Your task to perform on an android device: Open Youtube and go to the subscriptions tab Image 0: 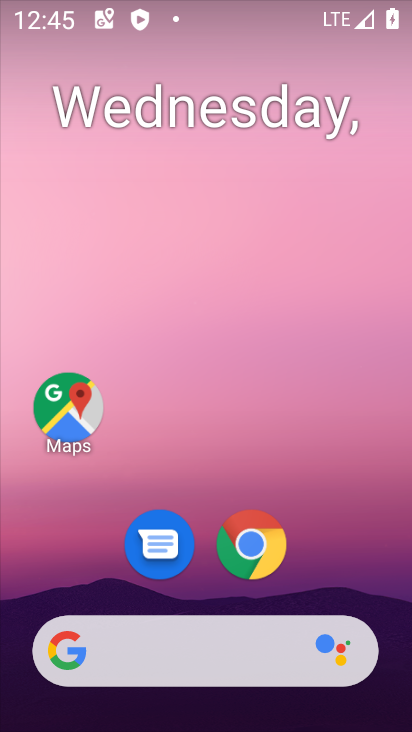
Step 0: drag from (396, 620) to (350, 114)
Your task to perform on an android device: Open Youtube and go to the subscriptions tab Image 1: 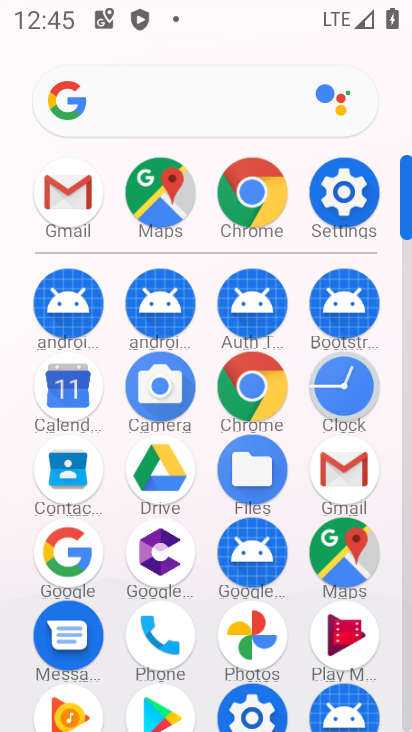
Step 1: drag from (300, 669) to (314, 99)
Your task to perform on an android device: Open Youtube and go to the subscriptions tab Image 2: 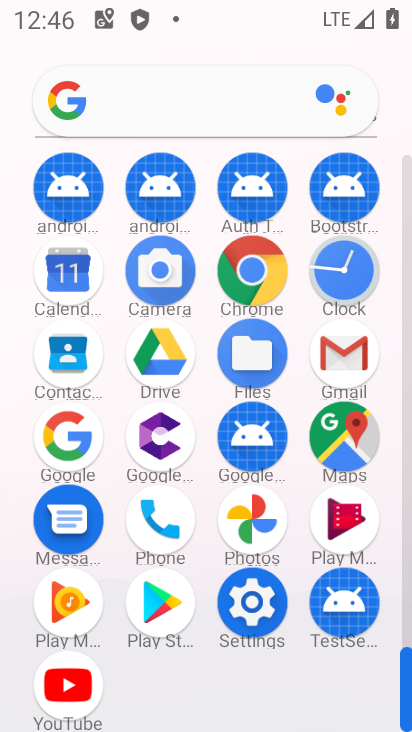
Step 2: click (86, 665)
Your task to perform on an android device: Open Youtube and go to the subscriptions tab Image 3: 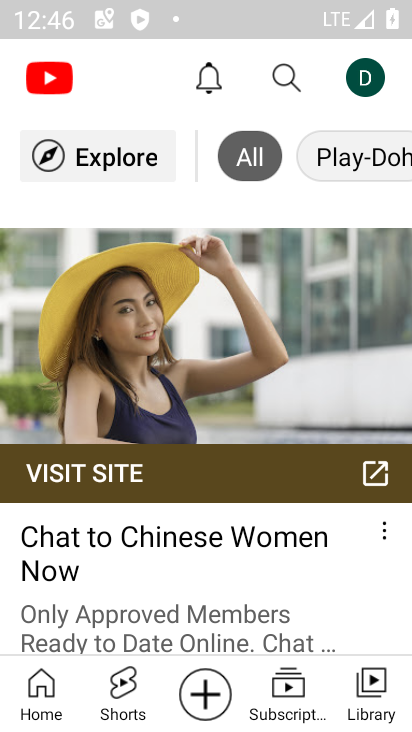
Step 3: click (287, 686)
Your task to perform on an android device: Open Youtube and go to the subscriptions tab Image 4: 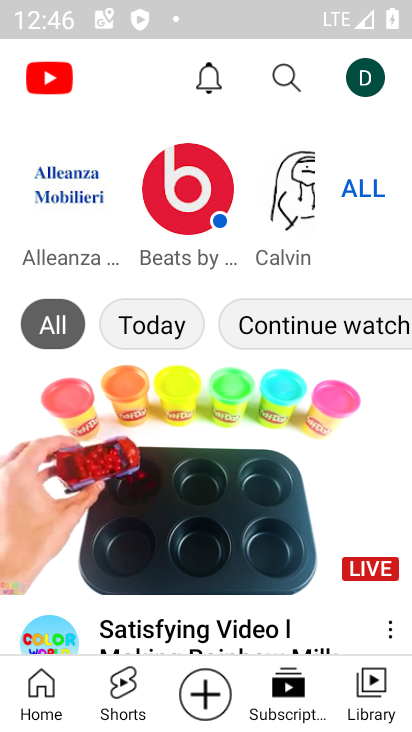
Step 4: task complete